Your task to perform on an android device: turn on airplane mode Image 0: 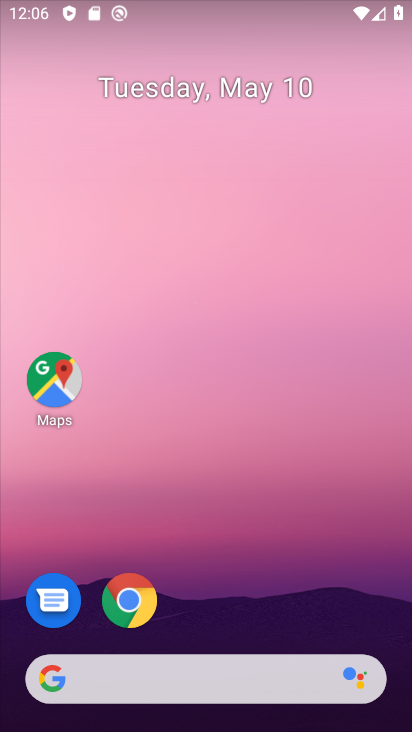
Step 0: drag from (237, 541) to (311, 31)
Your task to perform on an android device: turn on airplane mode Image 1: 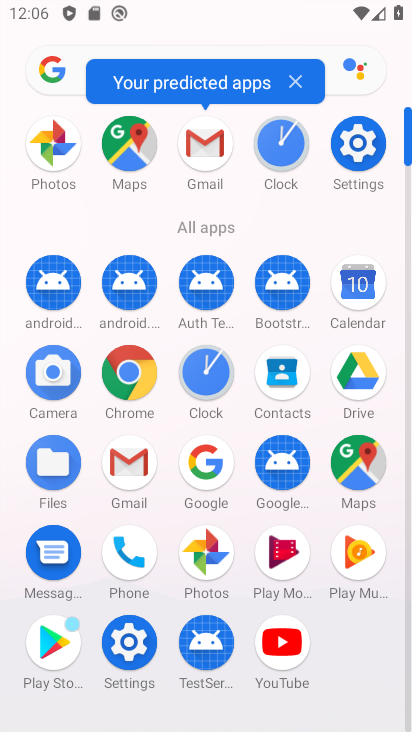
Step 1: click (348, 173)
Your task to perform on an android device: turn on airplane mode Image 2: 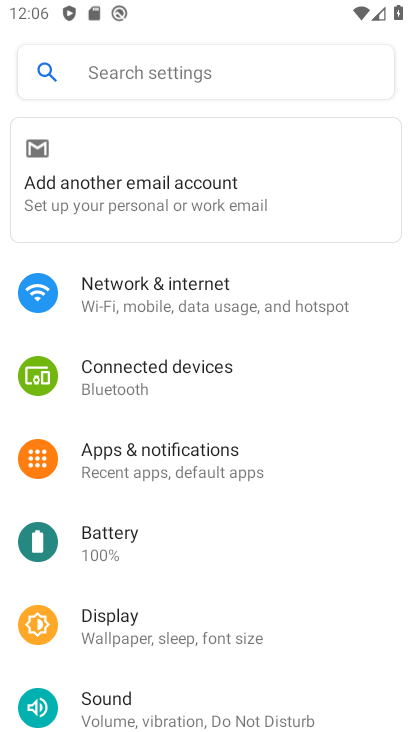
Step 2: click (170, 309)
Your task to perform on an android device: turn on airplane mode Image 3: 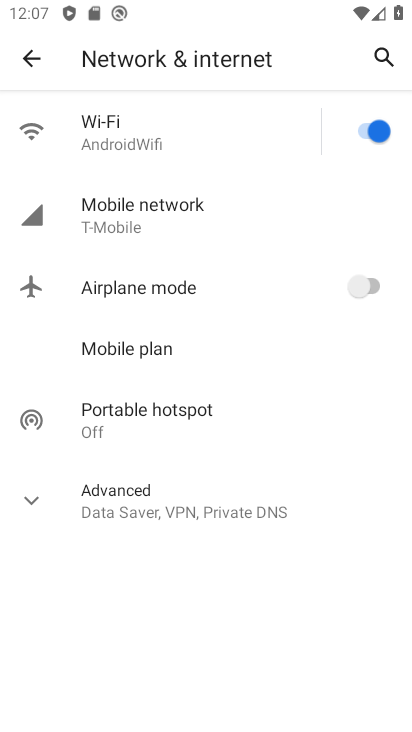
Step 3: click (358, 281)
Your task to perform on an android device: turn on airplane mode Image 4: 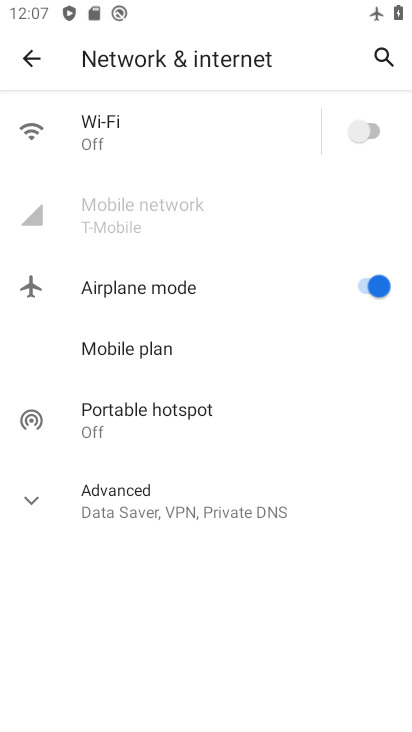
Step 4: task complete